Your task to perform on an android device: turn on wifi Image 0: 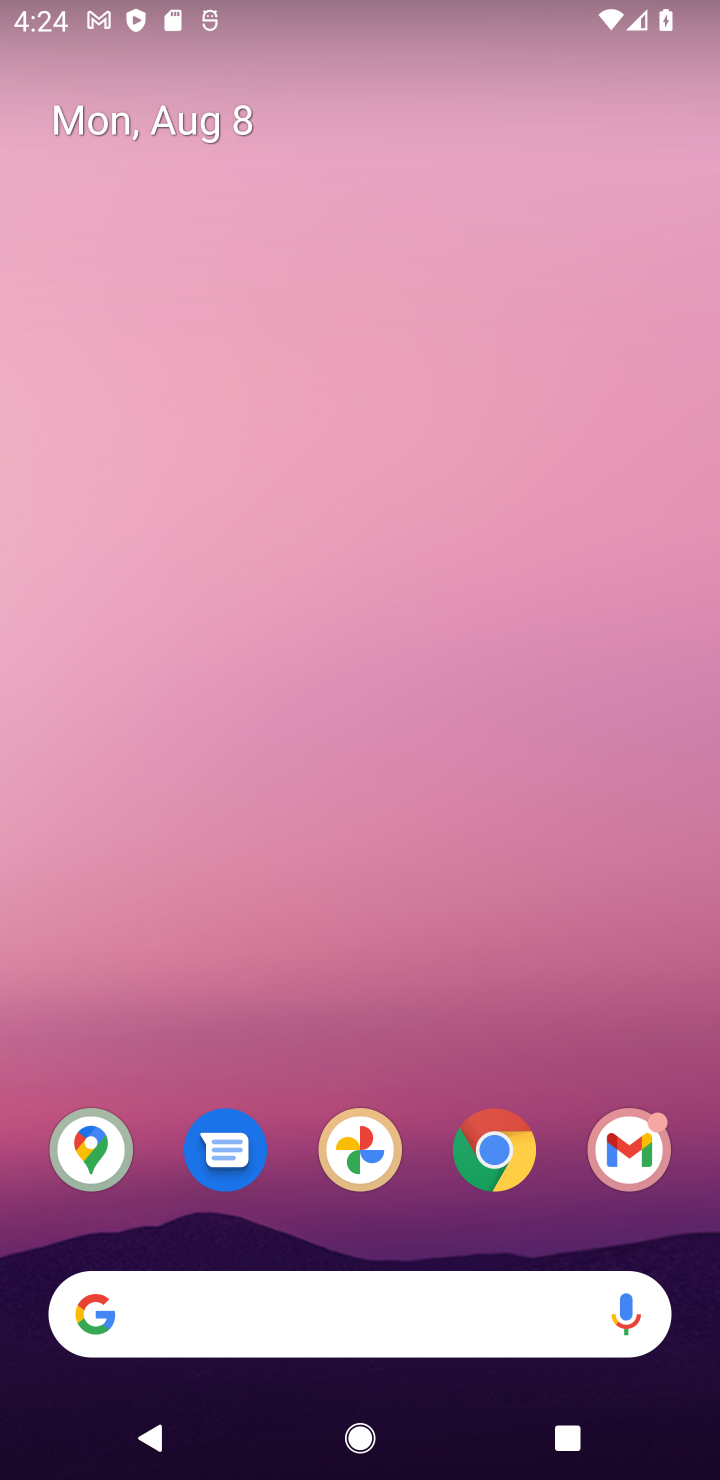
Step 0: drag from (302, 1244) to (233, 12)
Your task to perform on an android device: turn on wifi Image 1: 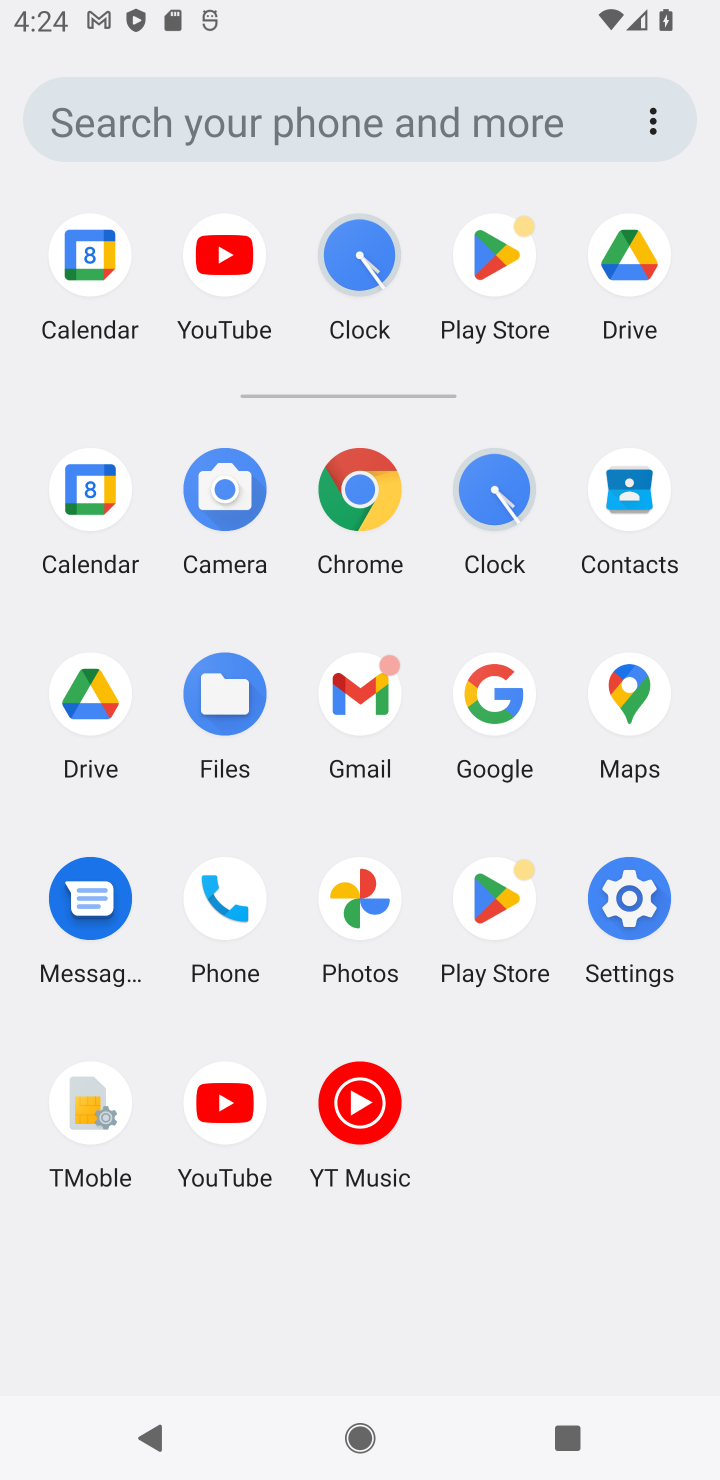
Step 1: click (664, 926)
Your task to perform on an android device: turn on wifi Image 2: 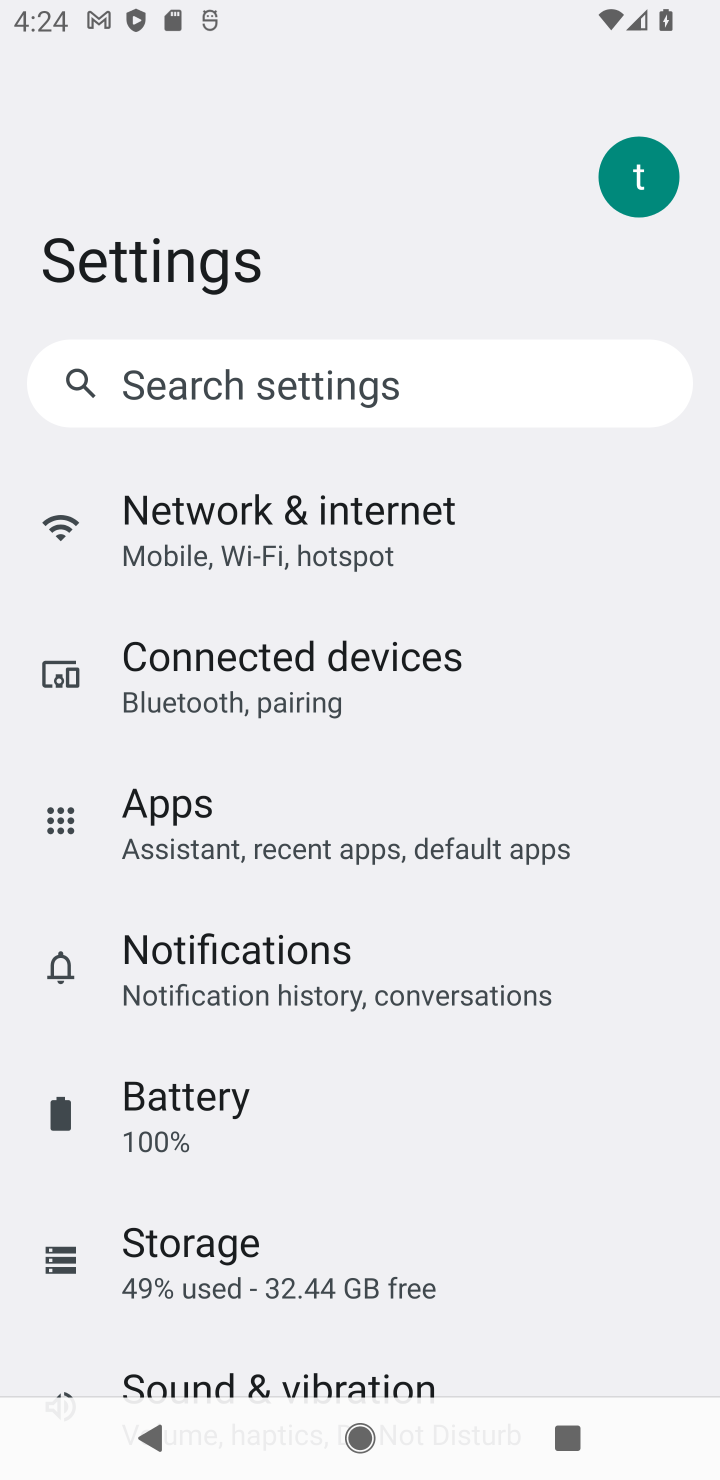
Step 2: click (336, 476)
Your task to perform on an android device: turn on wifi Image 3: 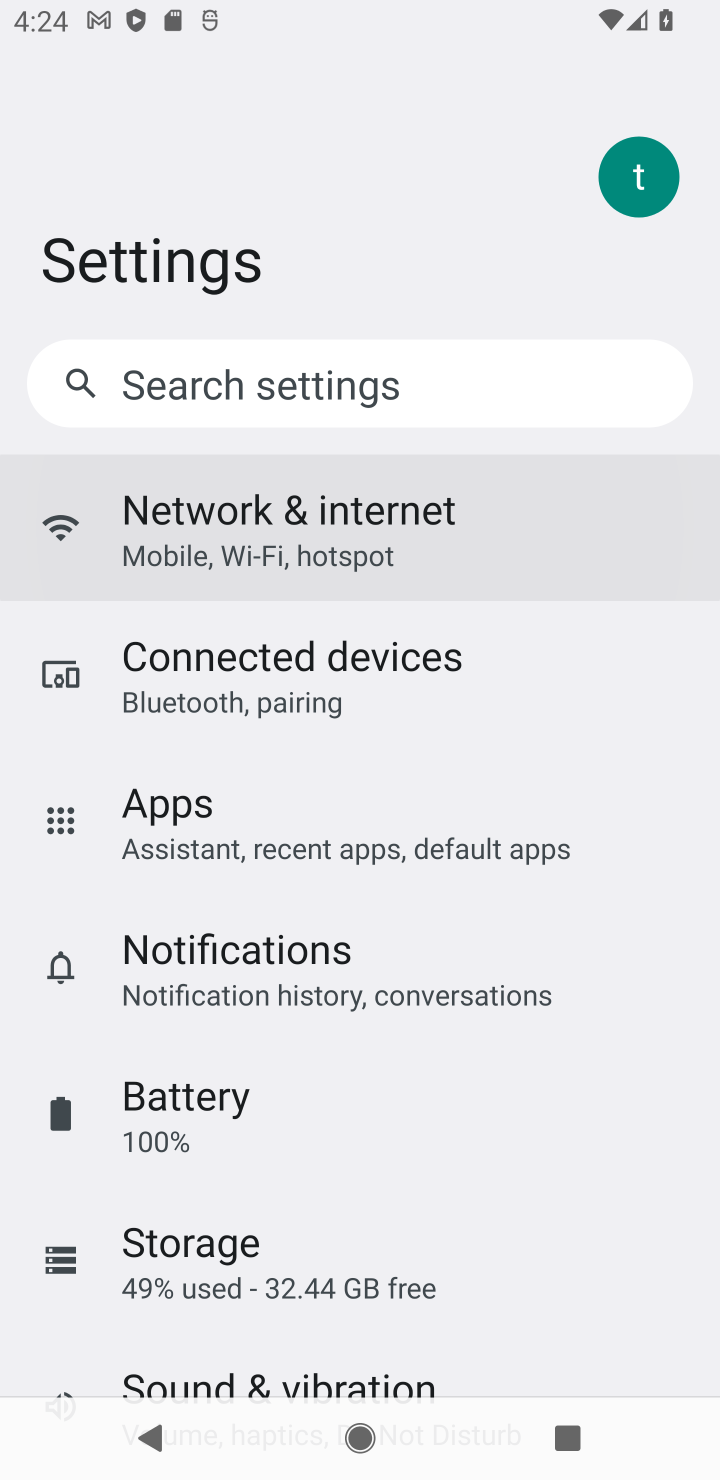
Step 3: task complete